Your task to perform on an android device: turn off airplane mode Image 0: 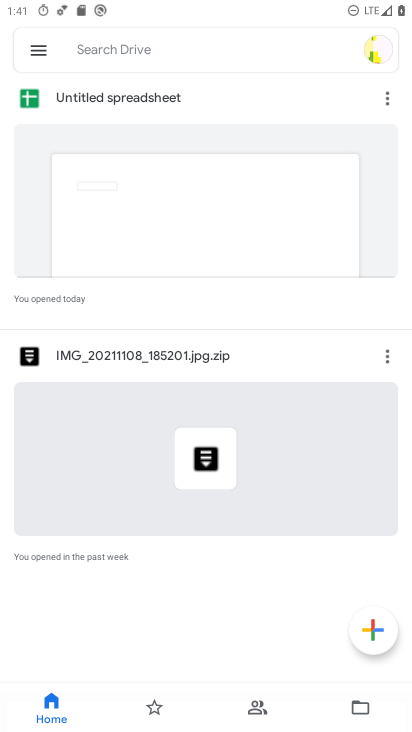
Step 0: drag from (176, 623) to (199, 178)
Your task to perform on an android device: turn off airplane mode Image 1: 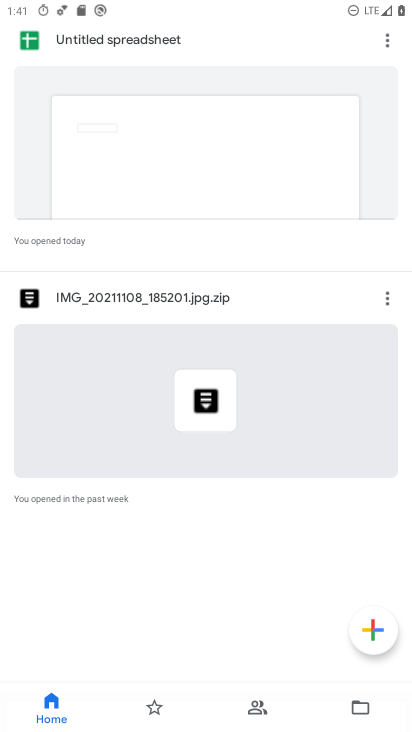
Step 1: drag from (171, 84) to (248, 548)
Your task to perform on an android device: turn off airplane mode Image 2: 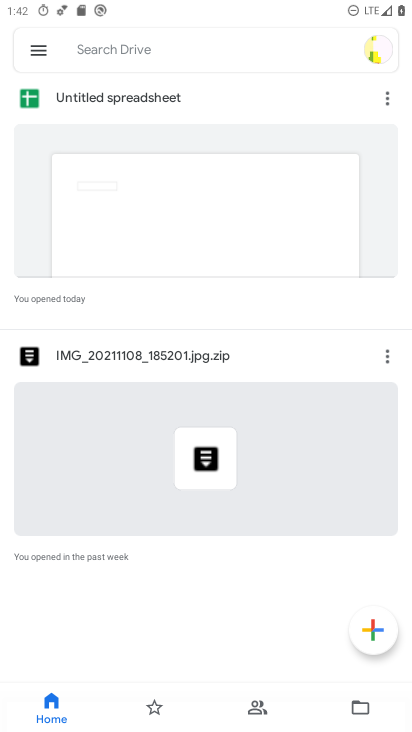
Step 2: press home button
Your task to perform on an android device: turn off airplane mode Image 3: 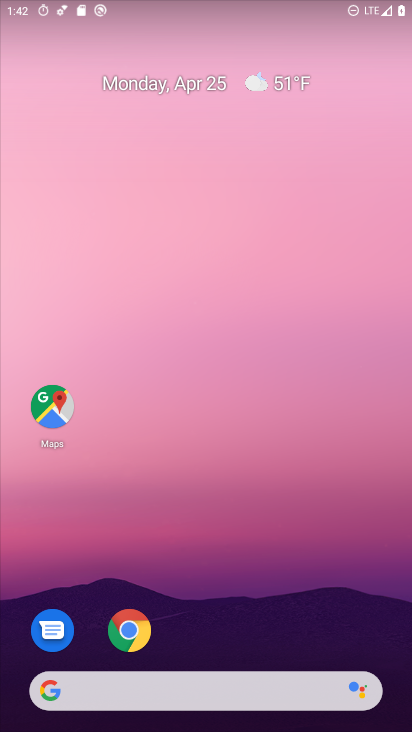
Step 3: drag from (186, 655) to (152, 159)
Your task to perform on an android device: turn off airplane mode Image 4: 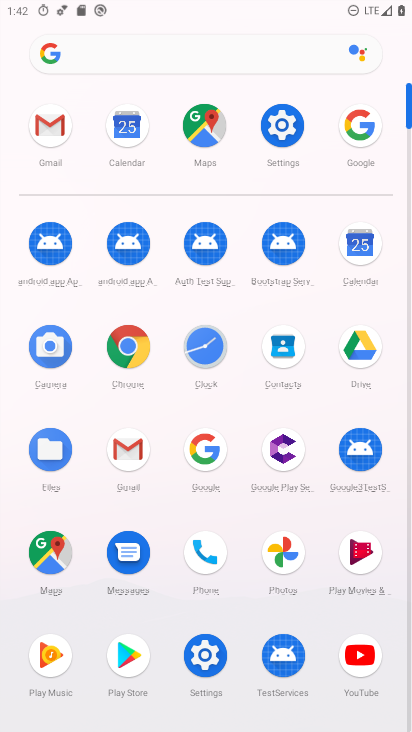
Step 4: click (286, 112)
Your task to perform on an android device: turn off airplane mode Image 5: 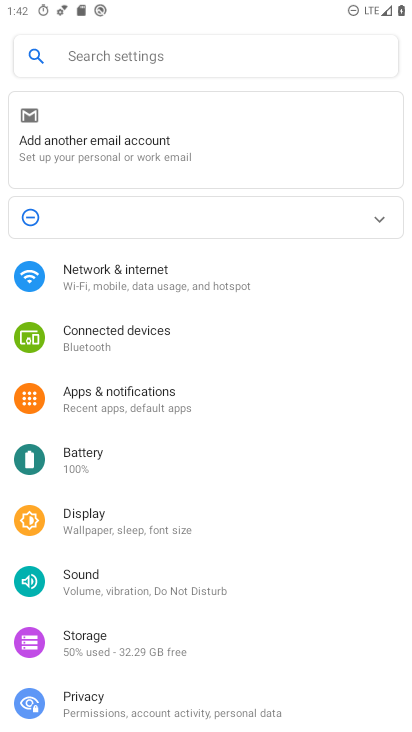
Step 5: click (191, 276)
Your task to perform on an android device: turn off airplane mode Image 6: 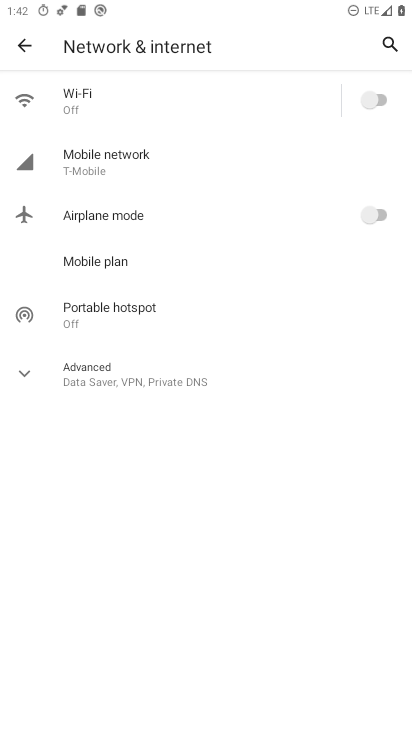
Step 6: task complete